Your task to perform on an android device: What's on my calendar tomorrow? Image 0: 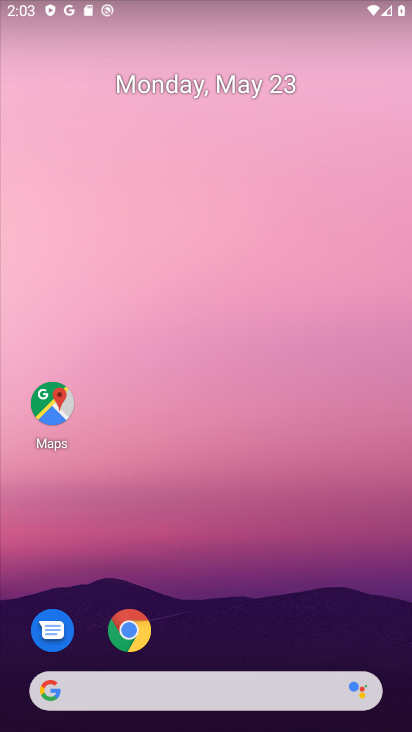
Step 0: click (282, 98)
Your task to perform on an android device: What's on my calendar tomorrow? Image 1: 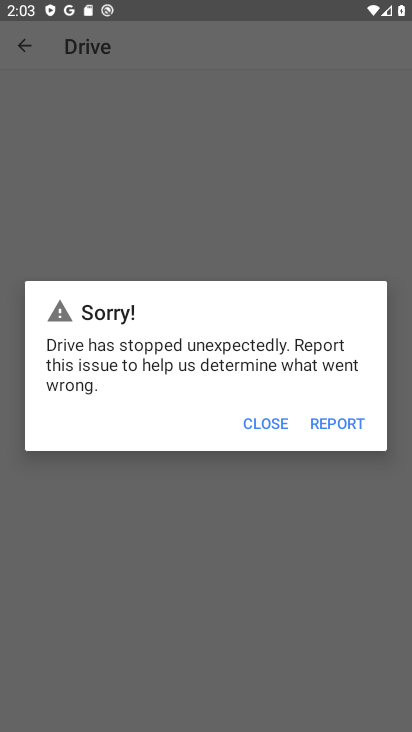
Step 1: press home button
Your task to perform on an android device: What's on my calendar tomorrow? Image 2: 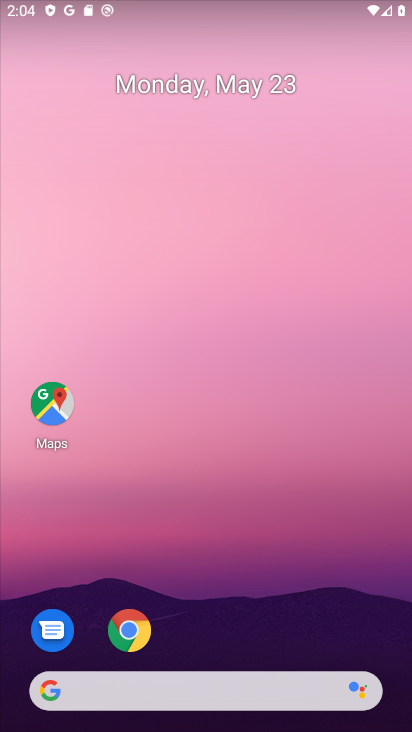
Step 2: drag from (288, 585) to (170, 162)
Your task to perform on an android device: What's on my calendar tomorrow? Image 3: 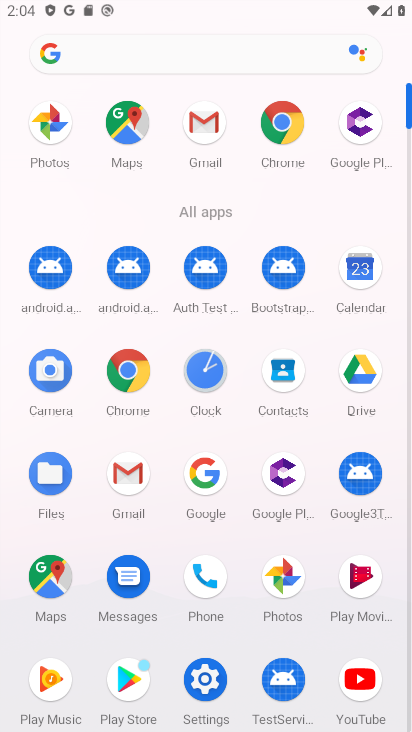
Step 3: click (363, 270)
Your task to perform on an android device: What's on my calendar tomorrow? Image 4: 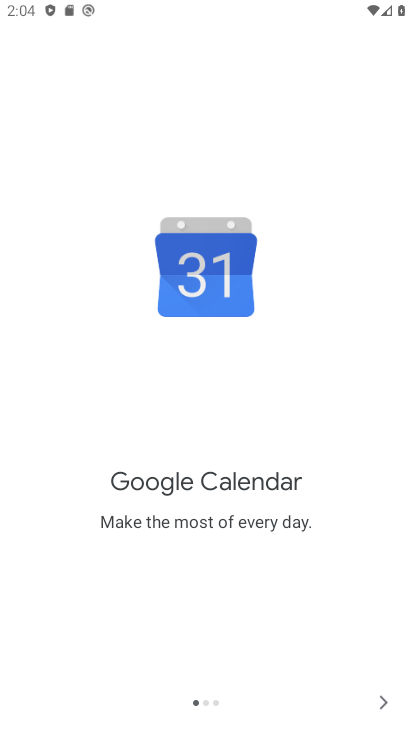
Step 4: click (375, 704)
Your task to perform on an android device: What's on my calendar tomorrow? Image 5: 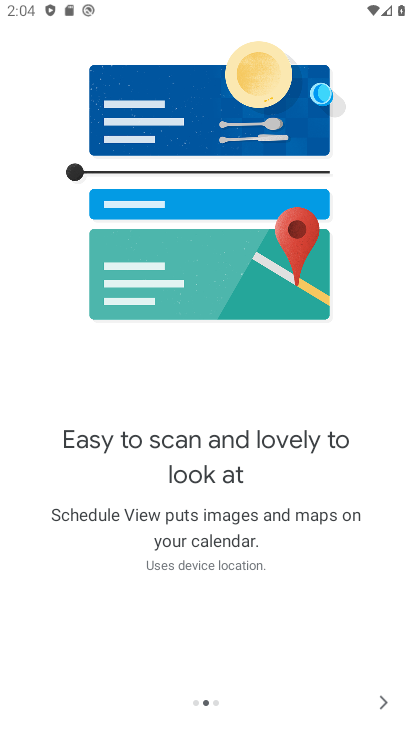
Step 5: click (380, 701)
Your task to perform on an android device: What's on my calendar tomorrow? Image 6: 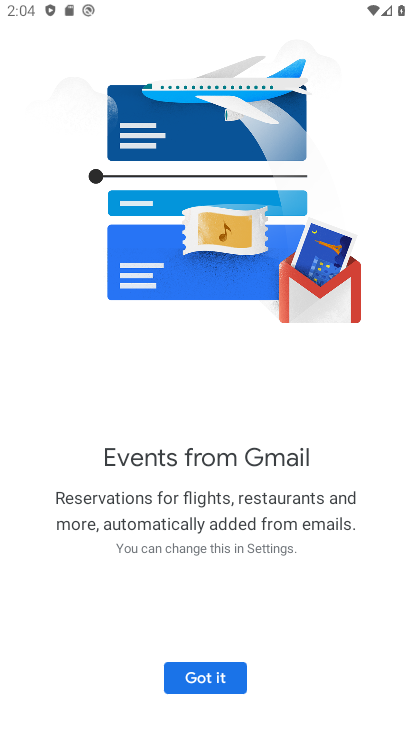
Step 6: click (211, 667)
Your task to perform on an android device: What's on my calendar tomorrow? Image 7: 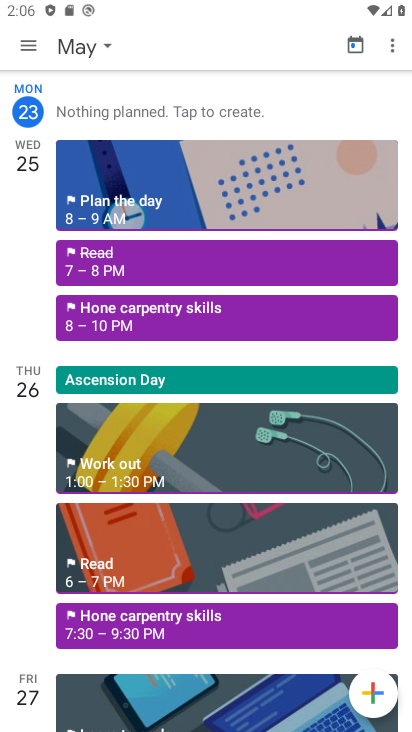
Step 7: click (90, 32)
Your task to perform on an android device: What's on my calendar tomorrow? Image 8: 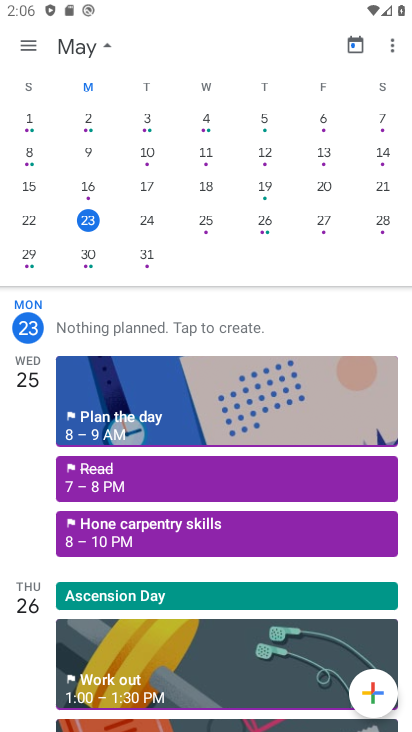
Step 8: click (149, 218)
Your task to perform on an android device: What's on my calendar tomorrow? Image 9: 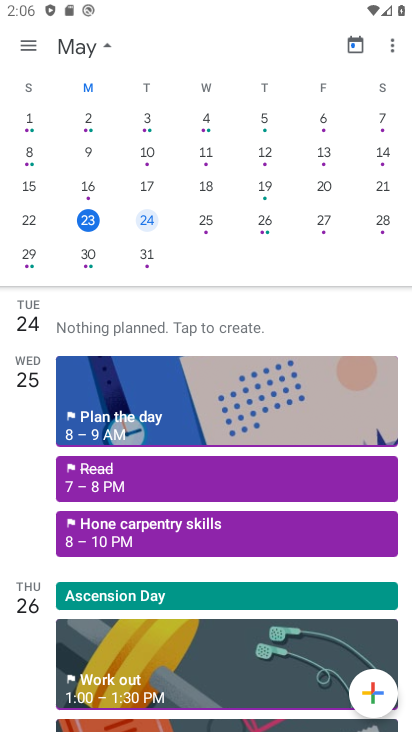
Step 9: task complete